Your task to perform on an android device: Go to network settings Image 0: 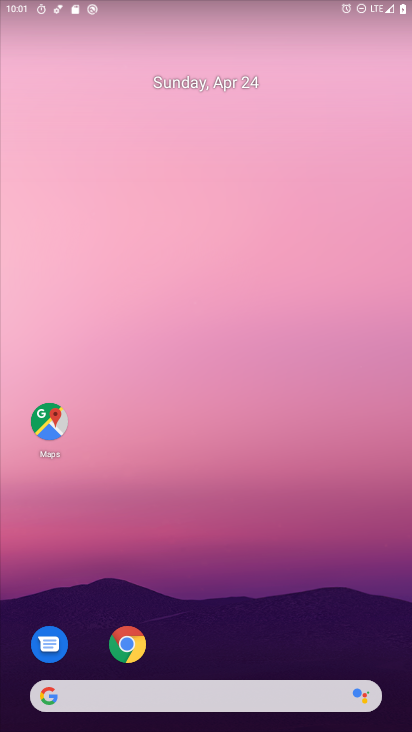
Step 0: drag from (235, 660) to (287, 60)
Your task to perform on an android device: Go to network settings Image 1: 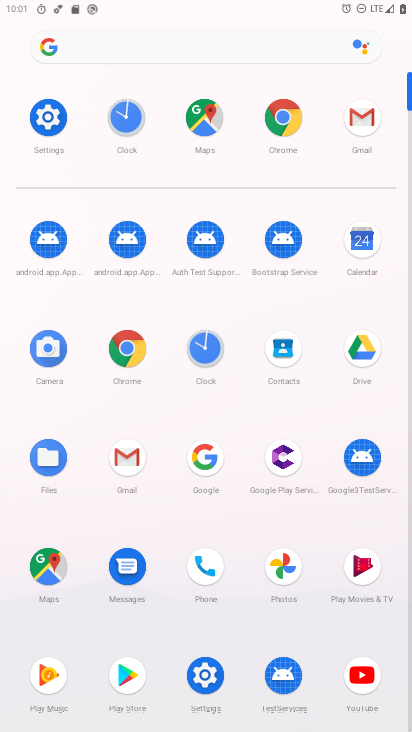
Step 1: click (60, 127)
Your task to perform on an android device: Go to network settings Image 2: 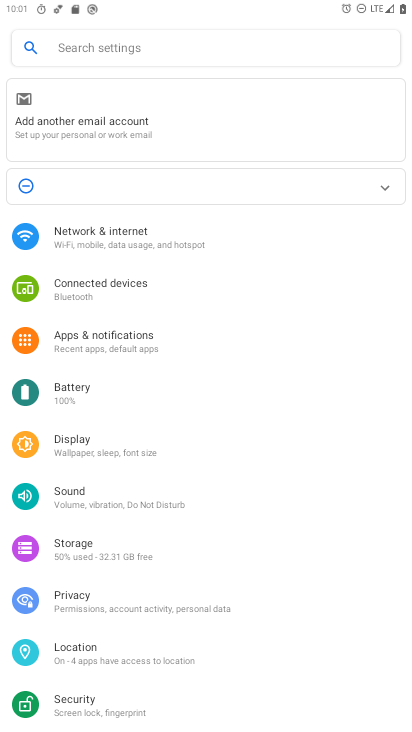
Step 2: click (92, 223)
Your task to perform on an android device: Go to network settings Image 3: 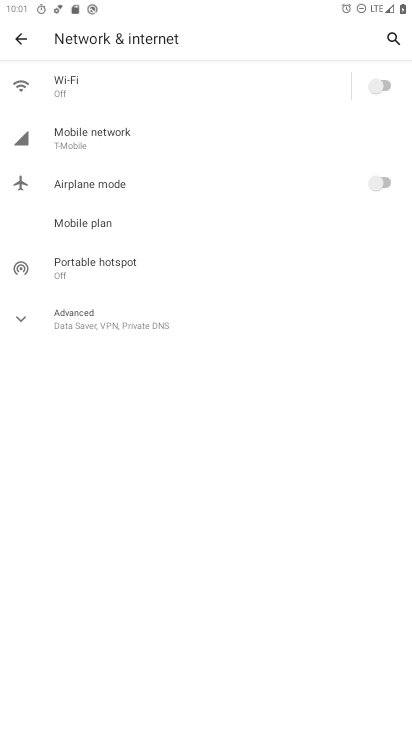
Step 3: click (81, 334)
Your task to perform on an android device: Go to network settings Image 4: 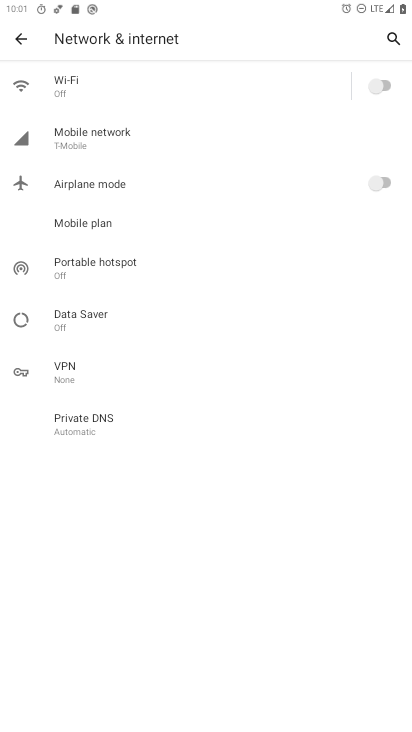
Step 4: click (94, 153)
Your task to perform on an android device: Go to network settings Image 5: 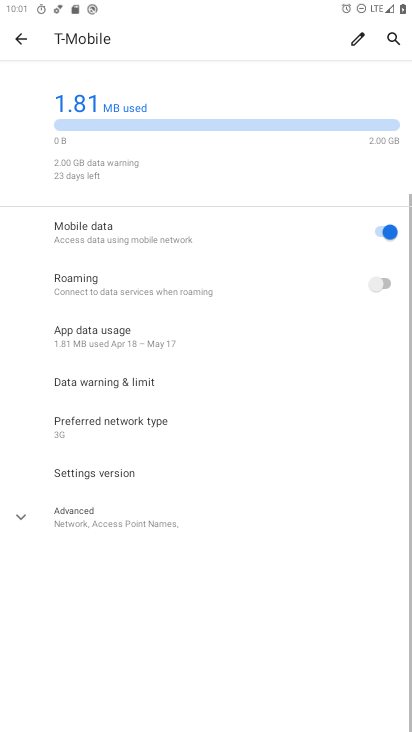
Step 5: drag from (40, 501) to (46, 273)
Your task to perform on an android device: Go to network settings Image 6: 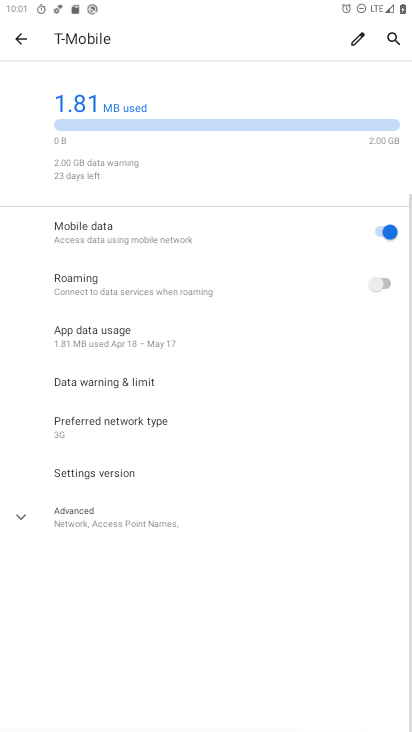
Step 6: click (33, 466)
Your task to perform on an android device: Go to network settings Image 7: 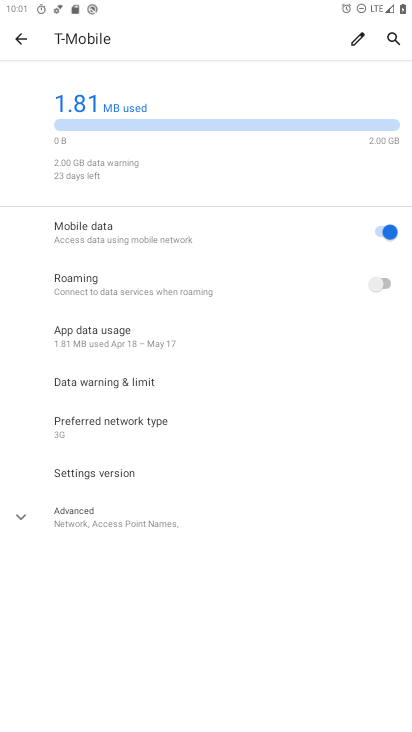
Step 7: click (31, 501)
Your task to perform on an android device: Go to network settings Image 8: 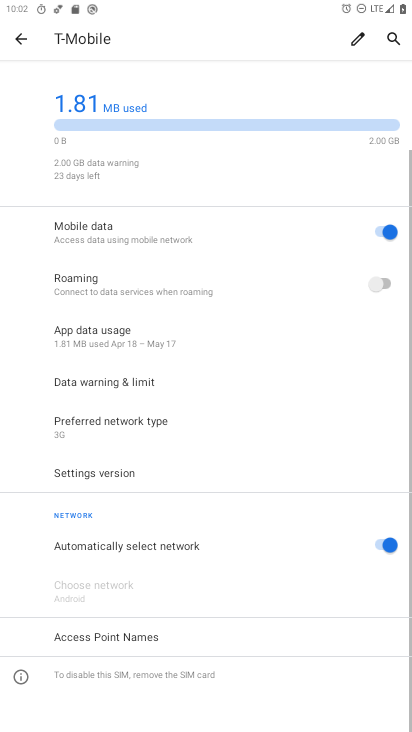
Step 8: task complete